Your task to perform on an android device: open app "Adobe Express: Graphic Design" (install if not already installed) Image 0: 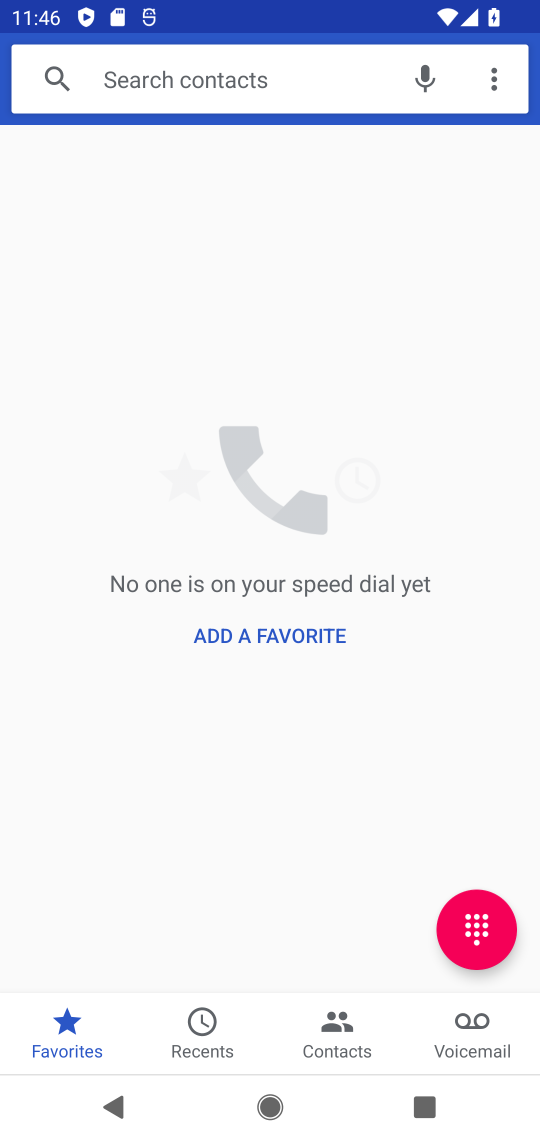
Step 0: press home button
Your task to perform on an android device: open app "Adobe Express: Graphic Design" (install if not already installed) Image 1: 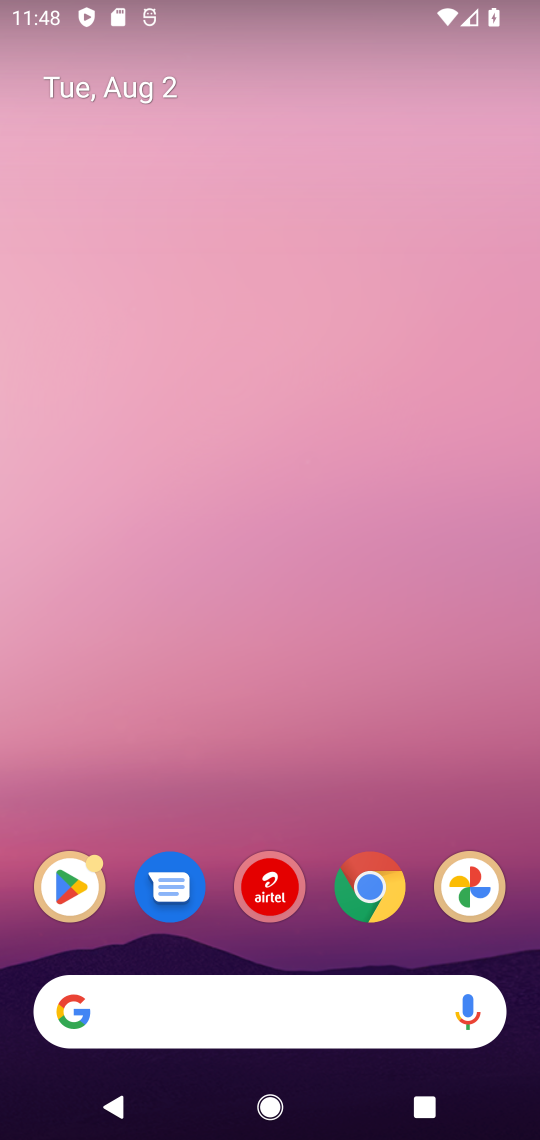
Step 1: drag from (192, 421) to (222, 192)
Your task to perform on an android device: open app "Adobe Express: Graphic Design" (install if not already installed) Image 2: 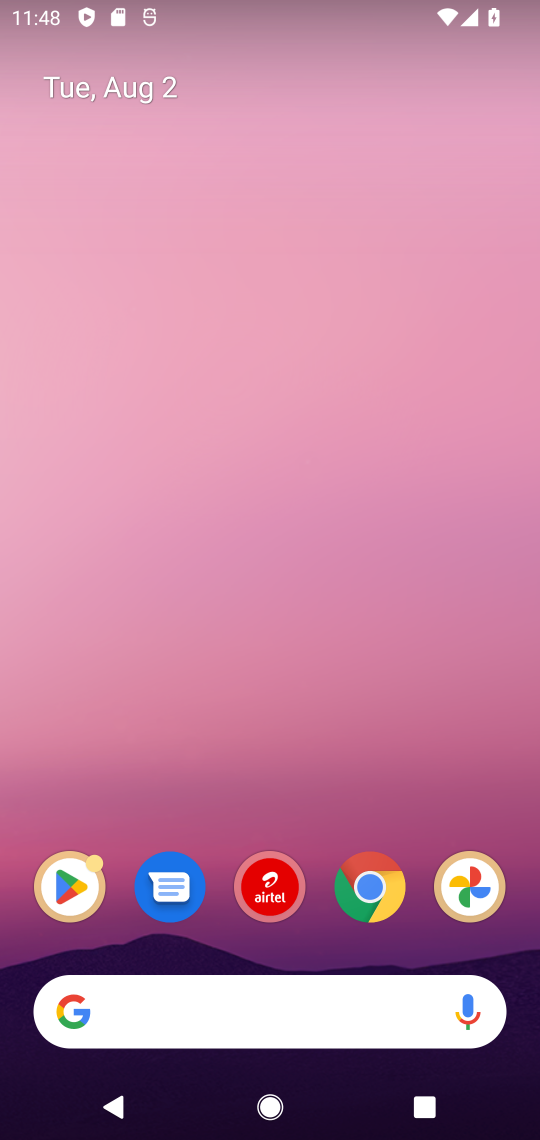
Step 2: click (49, 882)
Your task to perform on an android device: open app "Adobe Express: Graphic Design" (install if not already installed) Image 3: 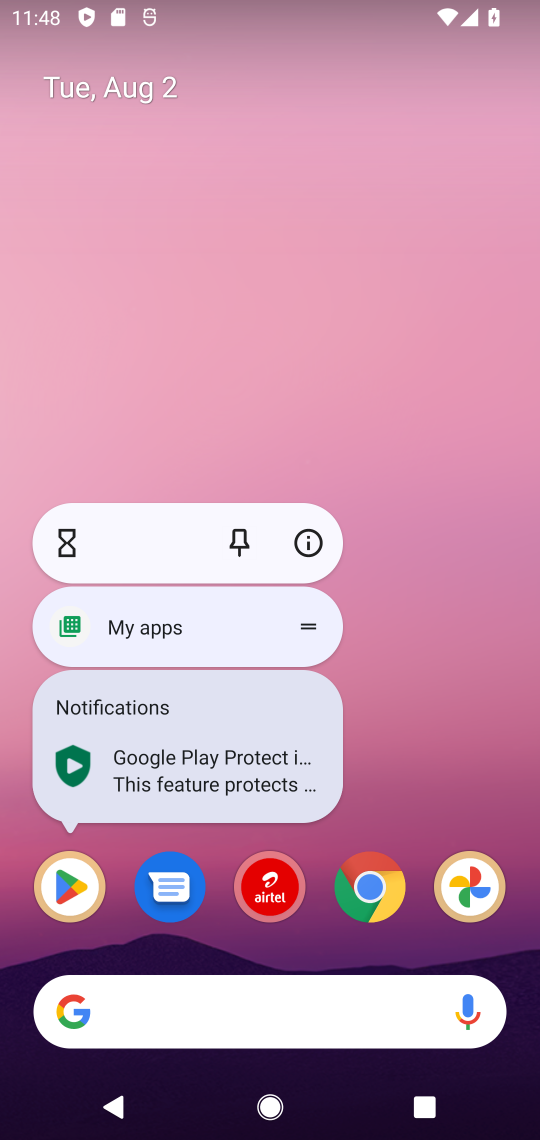
Step 3: click (49, 882)
Your task to perform on an android device: open app "Adobe Express: Graphic Design" (install if not already installed) Image 4: 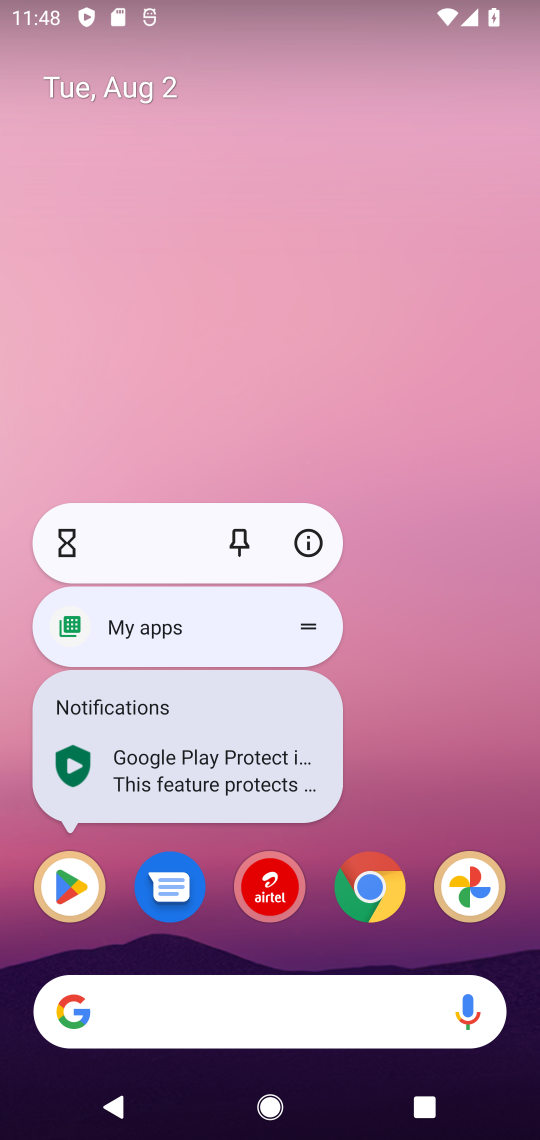
Step 4: click (72, 911)
Your task to perform on an android device: open app "Adobe Express: Graphic Design" (install if not already installed) Image 5: 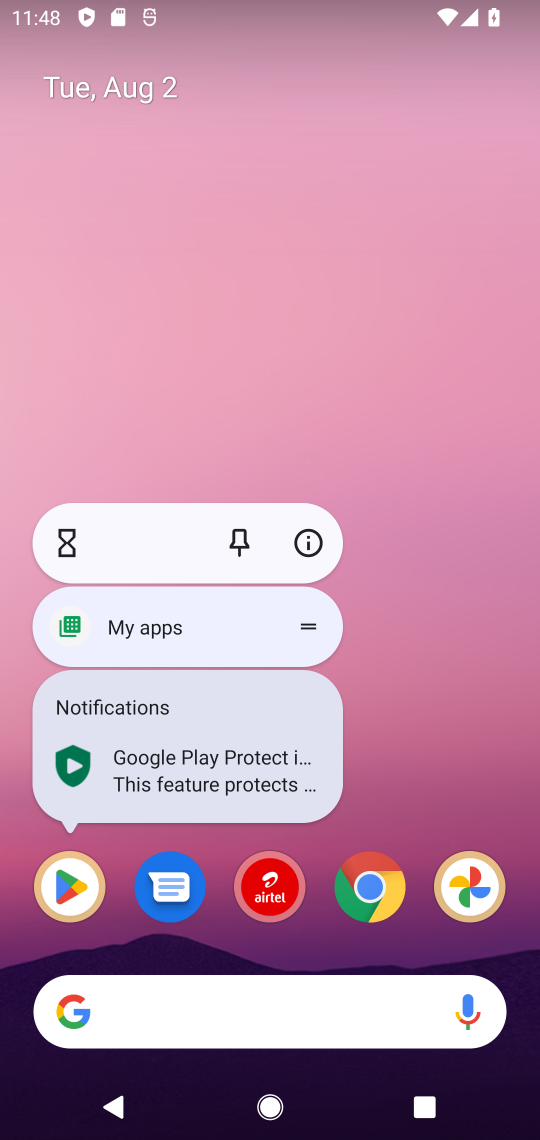
Step 5: click (72, 890)
Your task to perform on an android device: open app "Adobe Express: Graphic Design" (install if not already installed) Image 6: 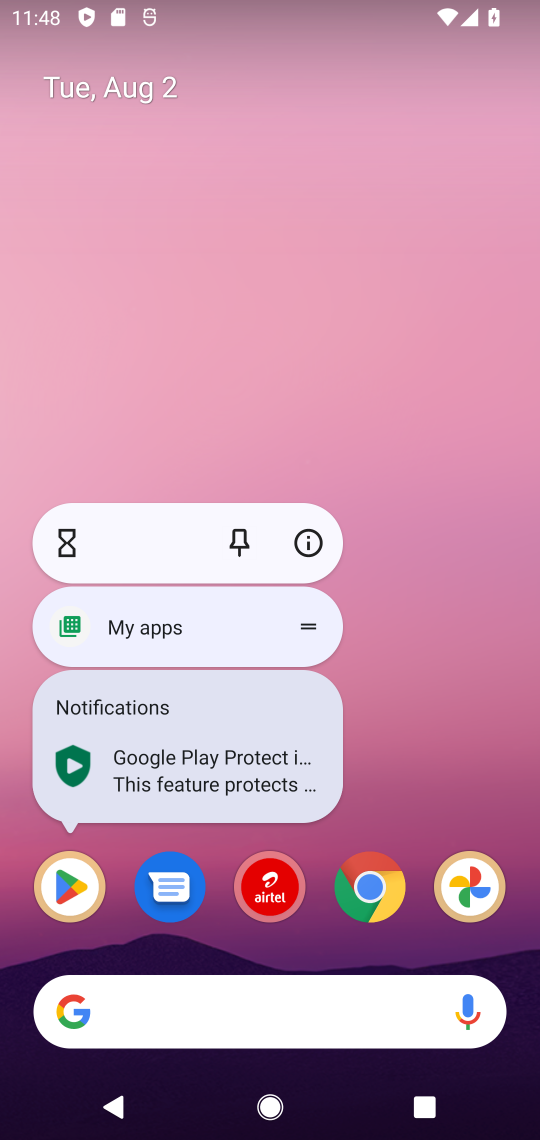
Step 6: click (69, 896)
Your task to perform on an android device: open app "Adobe Express: Graphic Design" (install if not already installed) Image 7: 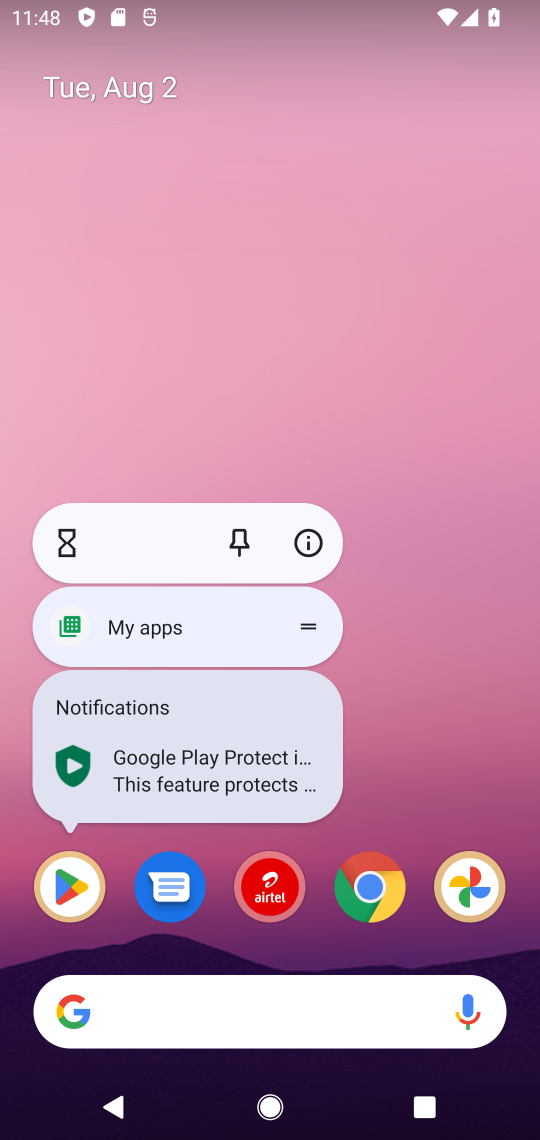
Step 7: click (69, 889)
Your task to perform on an android device: open app "Adobe Express: Graphic Design" (install if not already installed) Image 8: 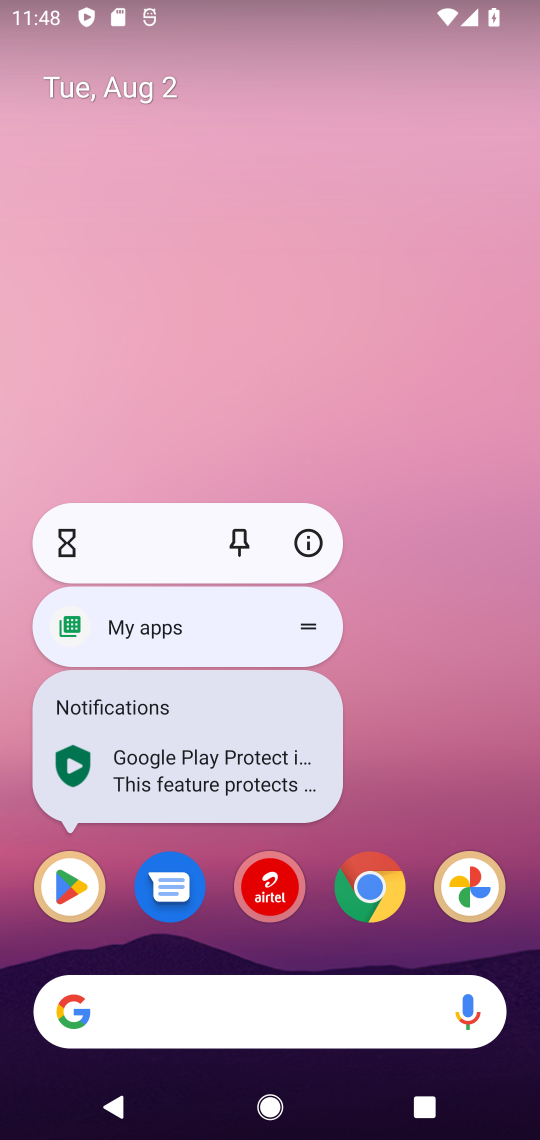
Step 8: click (61, 897)
Your task to perform on an android device: open app "Adobe Express: Graphic Design" (install if not already installed) Image 9: 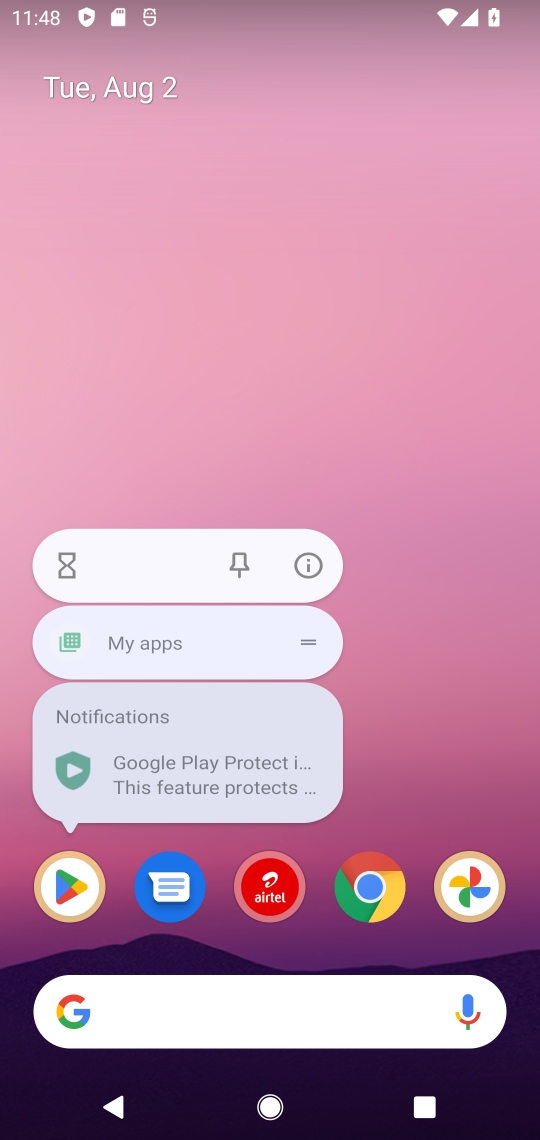
Step 9: click (61, 912)
Your task to perform on an android device: open app "Adobe Express: Graphic Design" (install if not already installed) Image 10: 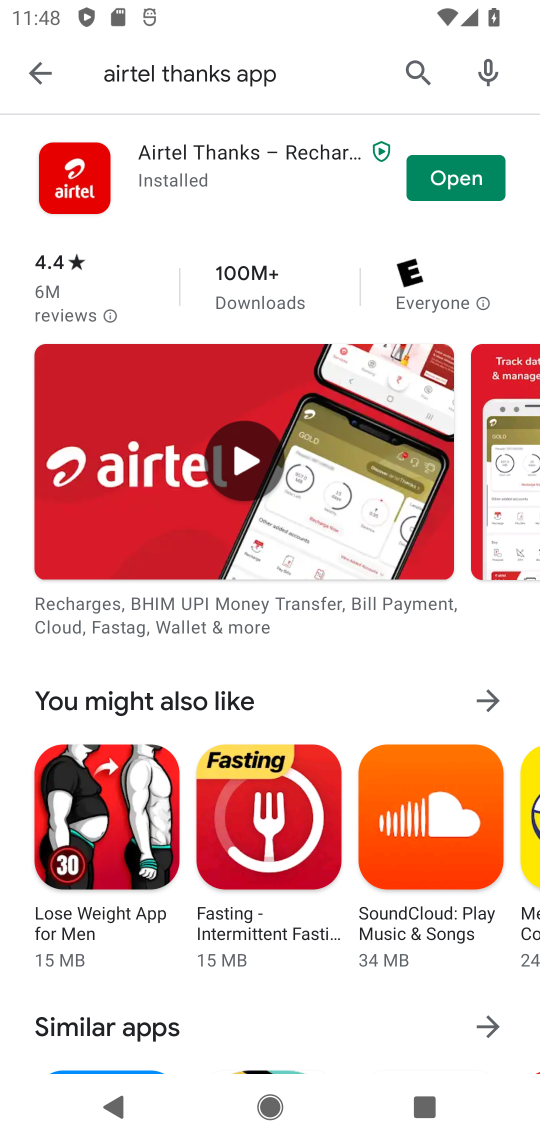
Step 10: click (403, 69)
Your task to perform on an android device: open app "Adobe Express: Graphic Design" (install if not already installed) Image 11: 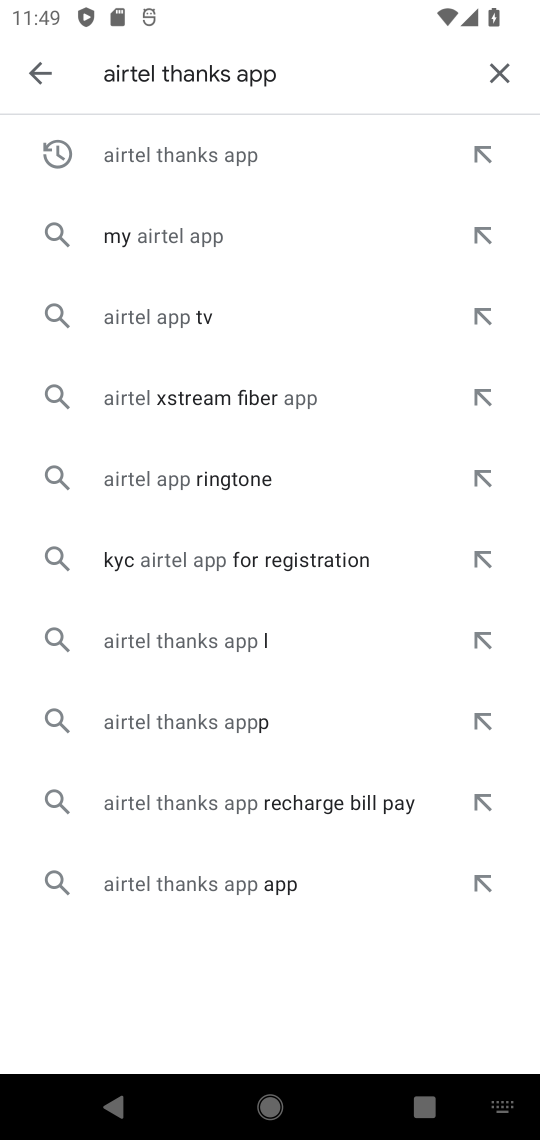
Step 11: click (497, 73)
Your task to perform on an android device: open app "Adobe Express: Graphic Design" (install if not already installed) Image 12: 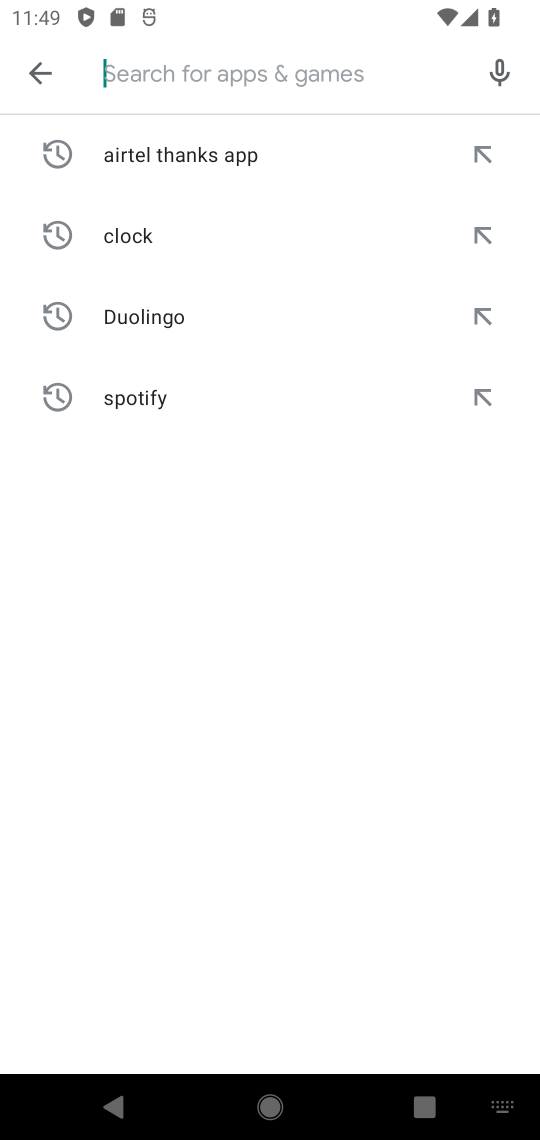
Step 12: type "Adobe Express: Graphic Design"
Your task to perform on an android device: open app "Adobe Express: Graphic Design" (install if not already installed) Image 13: 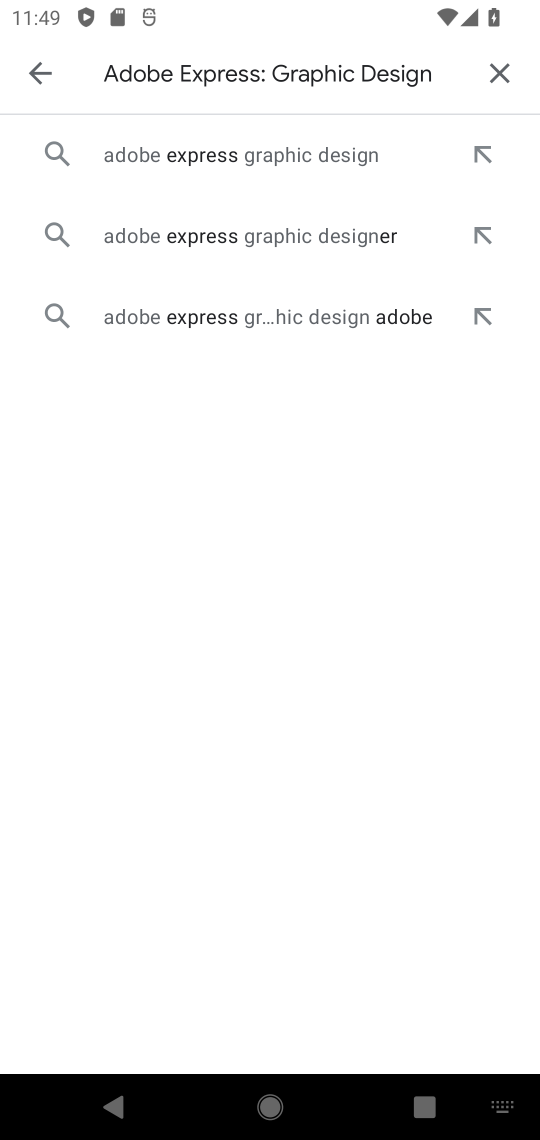
Step 13: click (305, 160)
Your task to perform on an android device: open app "Adobe Express: Graphic Design" (install if not already installed) Image 14: 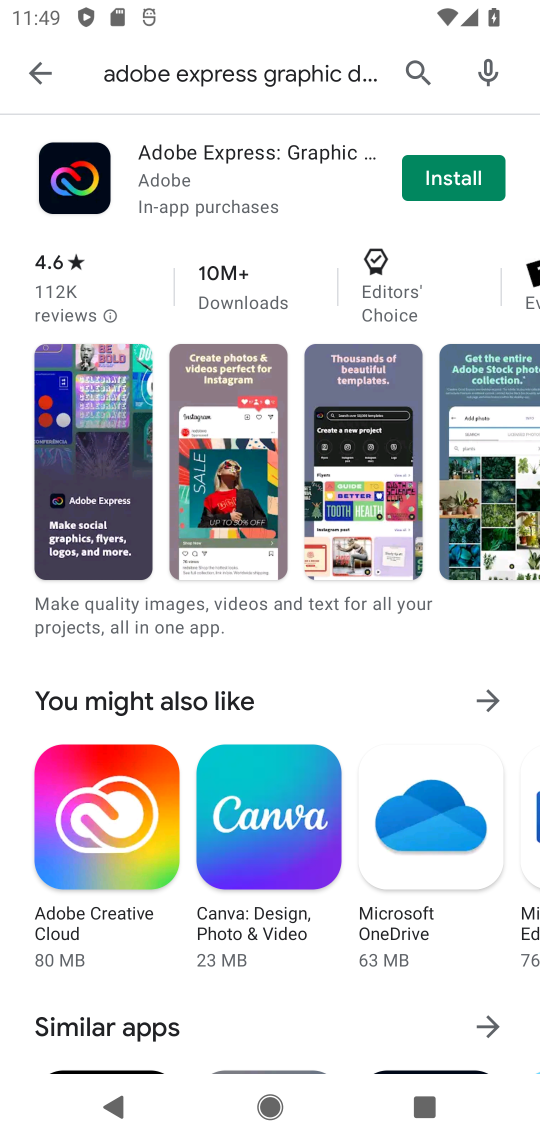
Step 14: click (460, 180)
Your task to perform on an android device: open app "Adobe Express: Graphic Design" (install if not already installed) Image 15: 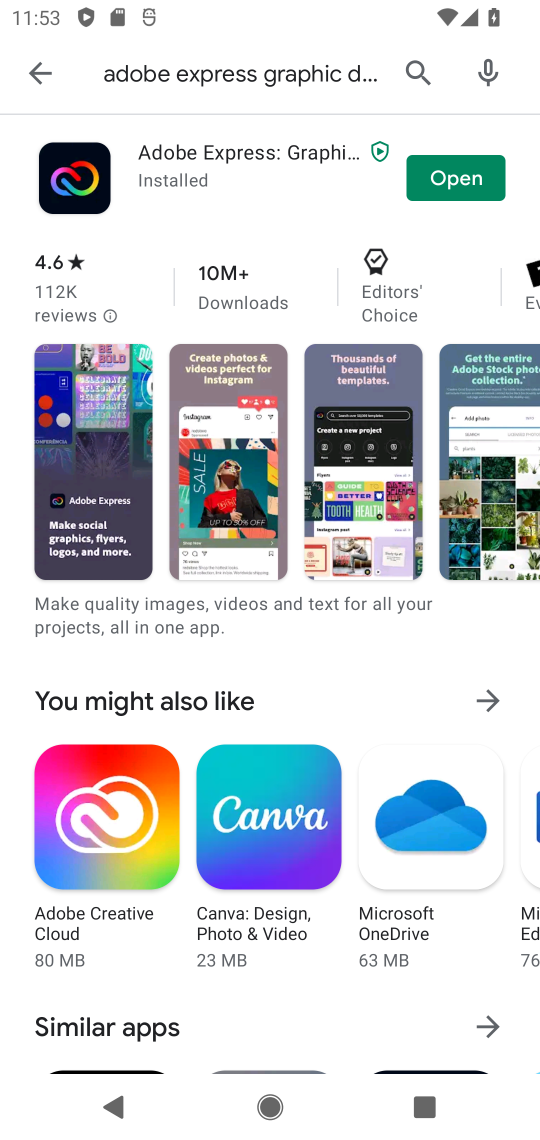
Step 15: click (466, 167)
Your task to perform on an android device: open app "Adobe Express: Graphic Design" (install if not already installed) Image 16: 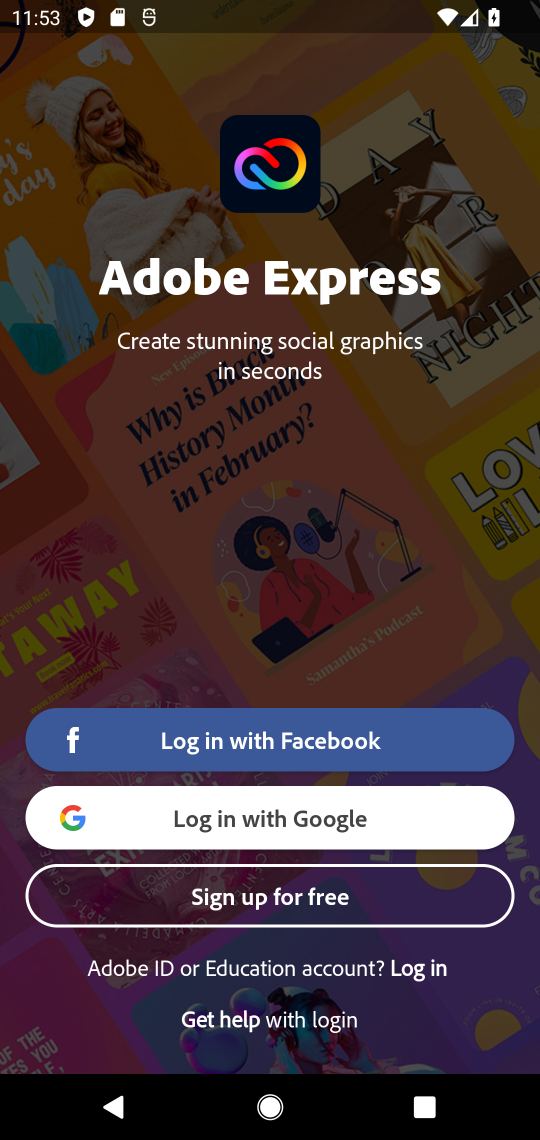
Step 16: task complete